Your task to perform on an android device: open chrome privacy settings Image 0: 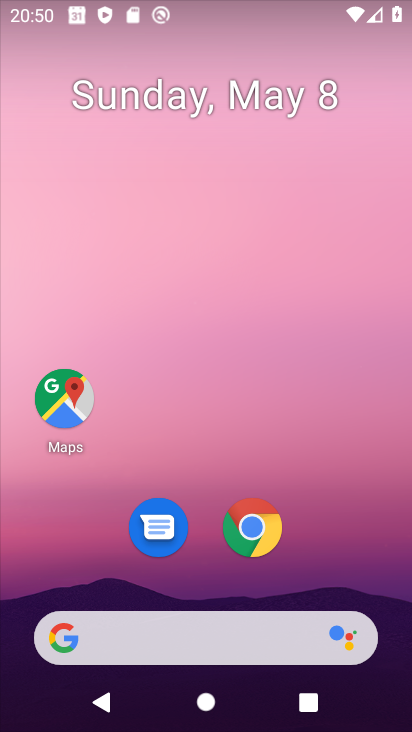
Step 0: click (255, 529)
Your task to perform on an android device: open chrome privacy settings Image 1: 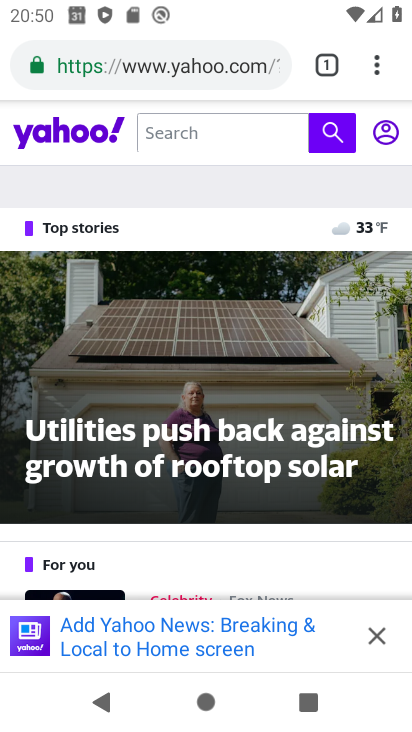
Step 1: click (368, 63)
Your task to perform on an android device: open chrome privacy settings Image 2: 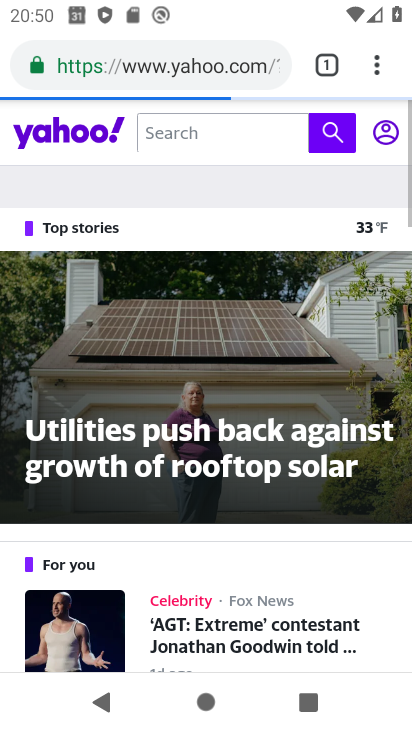
Step 2: click (371, 65)
Your task to perform on an android device: open chrome privacy settings Image 3: 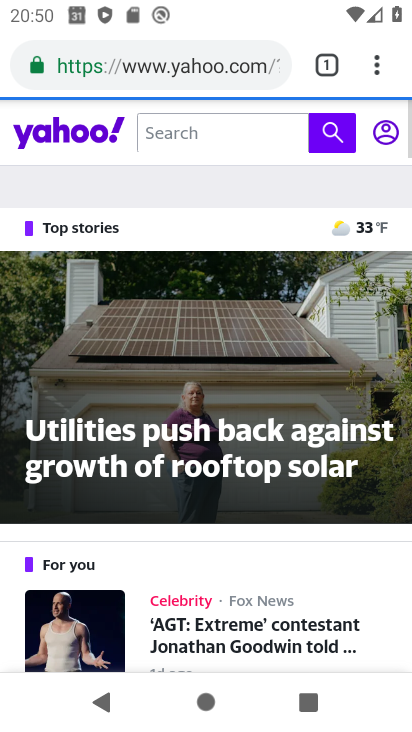
Step 3: click (371, 65)
Your task to perform on an android device: open chrome privacy settings Image 4: 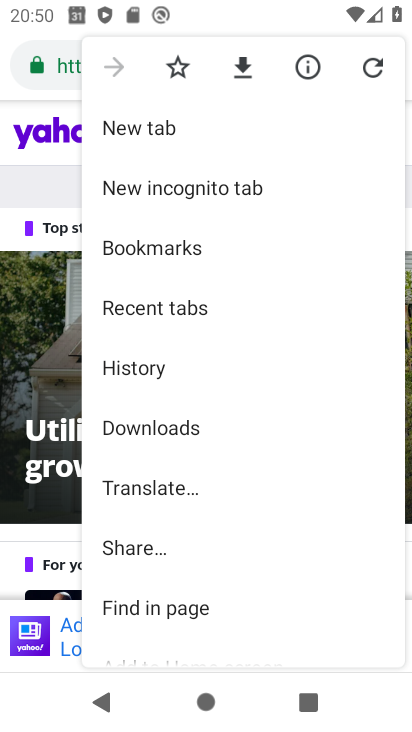
Step 4: drag from (204, 519) to (265, 87)
Your task to perform on an android device: open chrome privacy settings Image 5: 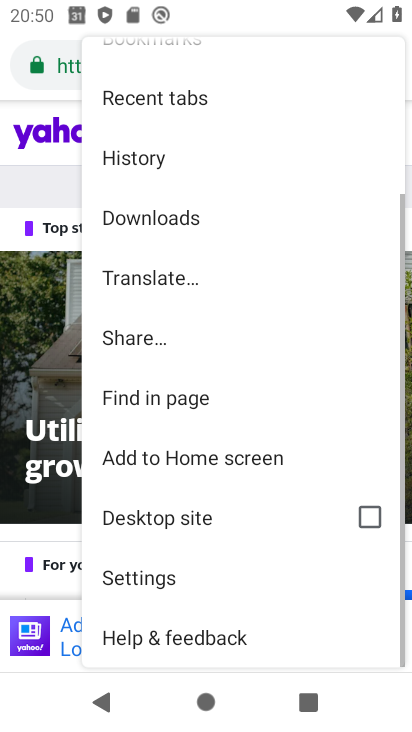
Step 5: click (166, 575)
Your task to perform on an android device: open chrome privacy settings Image 6: 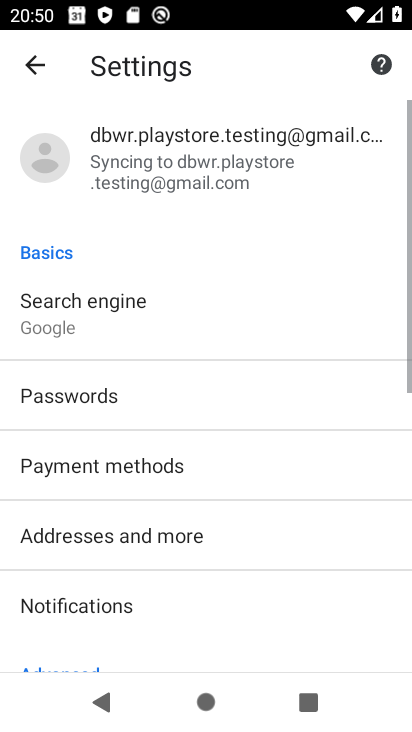
Step 6: drag from (229, 543) to (246, 222)
Your task to perform on an android device: open chrome privacy settings Image 7: 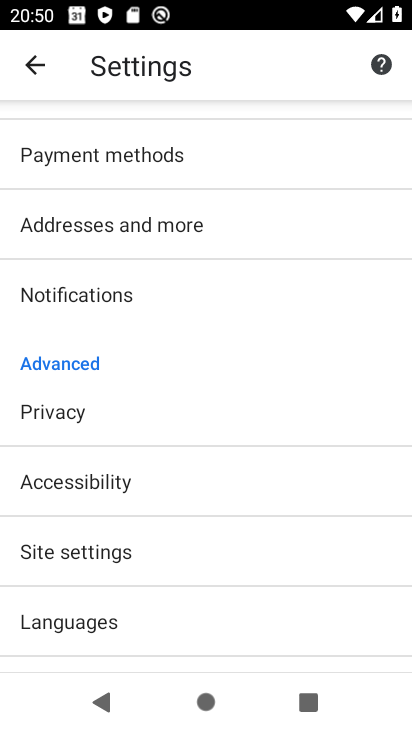
Step 7: click (105, 414)
Your task to perform on an android device: open chrome privacy settings Image 8: 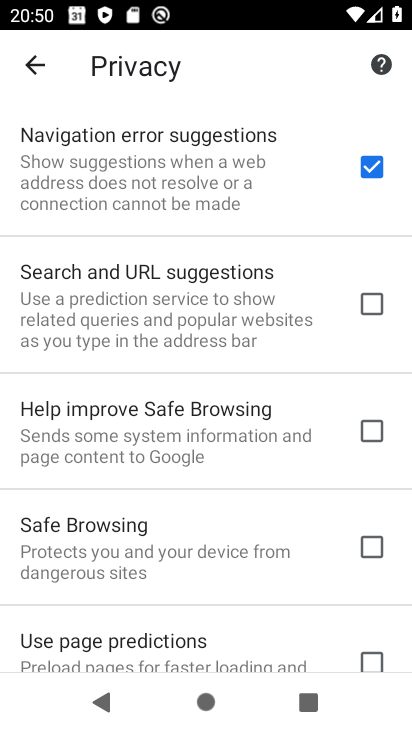
Step 8: task complete